Your task to perform on an android device: turn on showing notifications on the lock screen Image 0: 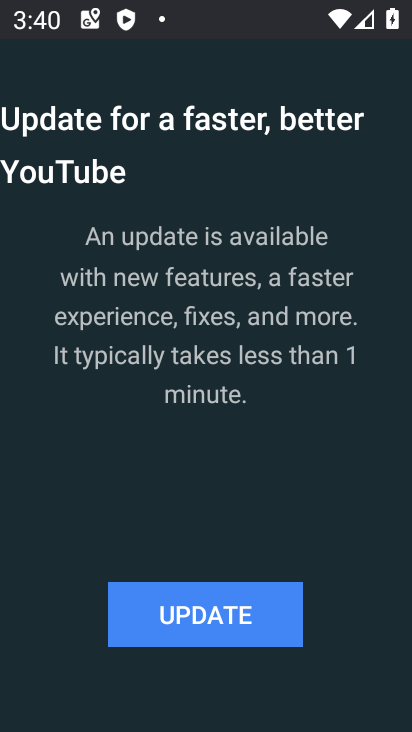
Step 0: press home button
Your task to perform on an android device: turn on showing notifications on the lock screen Image 1: 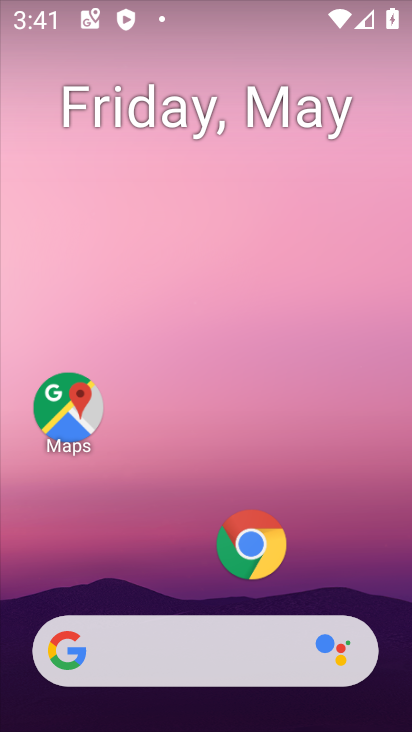
Step 1: drag from (204, 579) to (227, 164)
Your task to perform on an android device: turn on showing notifications on the lock screen Image 2: 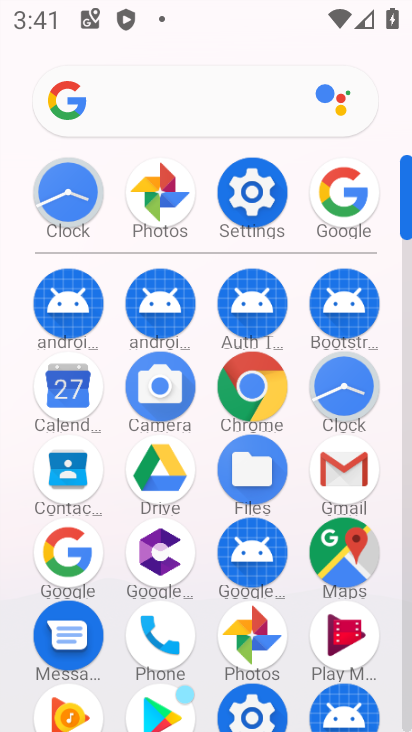
Step 2: click (237, 209)
Your task to perform on an android device: turn on showing notifications on the lock screen Image 3: 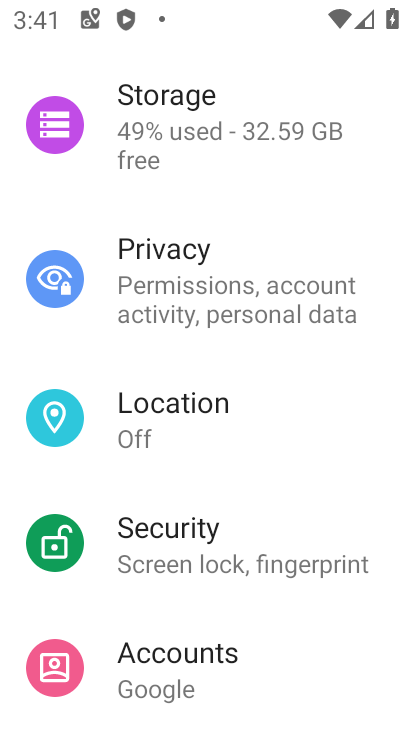
Step 3: drag from (260, 251) to (267, 580)
Your task to perform on an android device: turn on showing notifications on the lock screen Image 4: 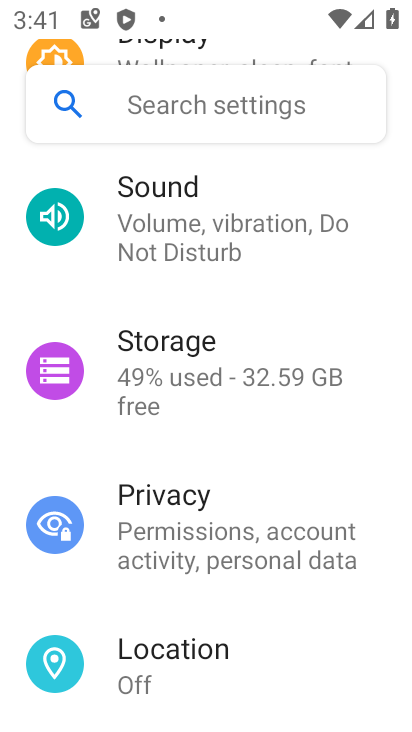
Step 4: drag from (254, 265) to (254, 553)
Your task to perform on an android device: turn on showing notifications on the lock screen Image 5: 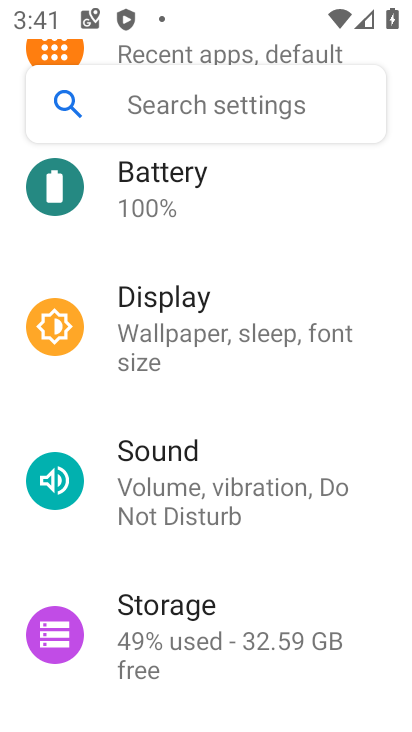
Step 5: drag from (222, 247) to (230, 552)
Your task to perform on an android device: turn on showing notifications on the lock screen Image 6: 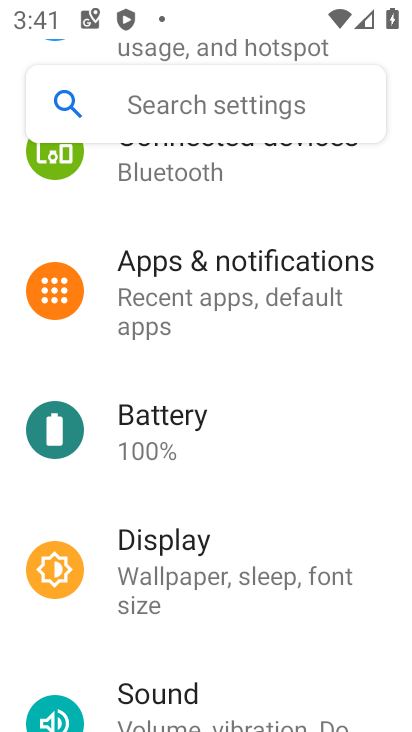
Step 6: click (225, 313)
Your task to perform on an android device: turn on showing notifications on the lock screen Image 7: 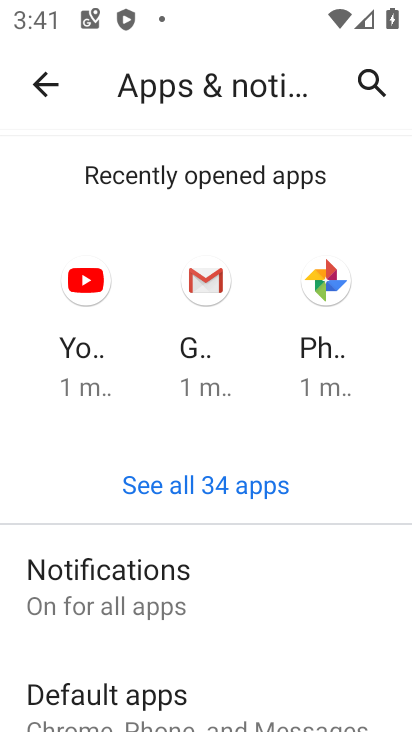
Step 7: click (200, 550)
Your task to perform on an android device: turn on showing notifications on the lock screen Image 8: 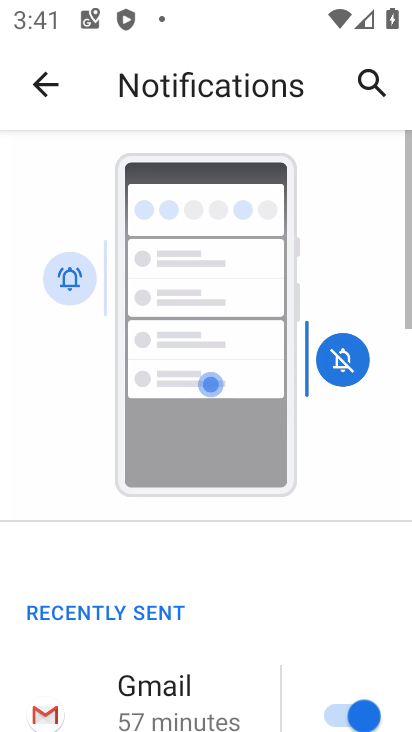
Step 8: drag from (227, 634) to (229, 303)
Your task to perform on an android device: turn on showing notifications on the lock screen Image 9: 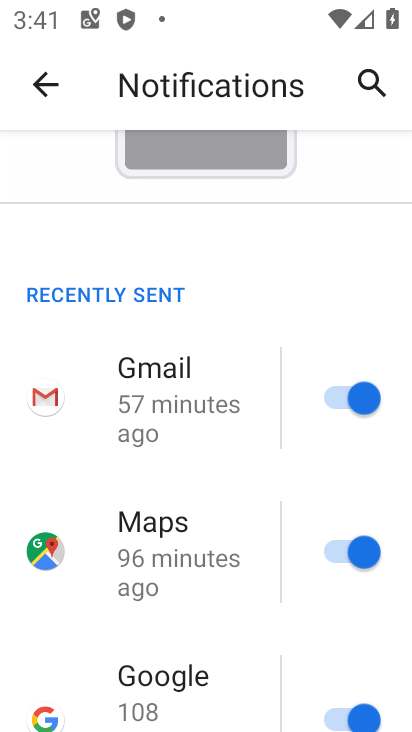
Step 9: drag from (214, 634) to (213, 350)
Your task to perform on an android device: turn on showing notifications on the lock screen Image 10: 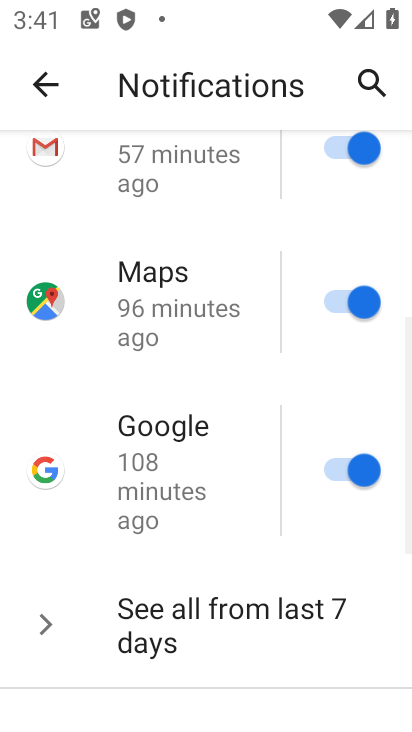
Step 10: drag from (227, 658) to (217, 376)
Your task to perform on an android device: turn on showing notifications on the lock screen Image 11: 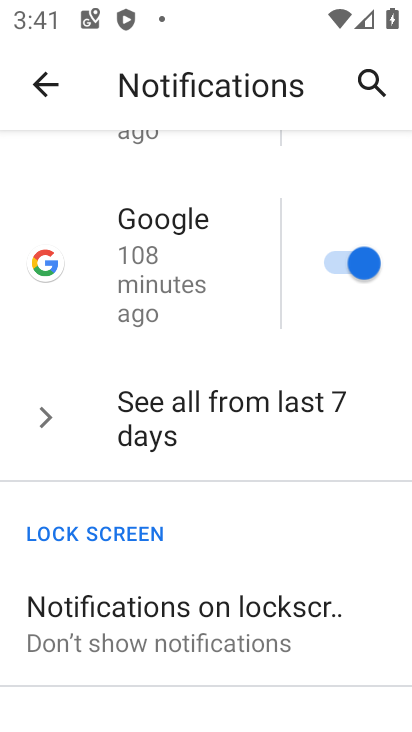
Step 11: click (254, 649)
Your task to perform on an android device: turn on showing notifications on the lock screen Image 12: 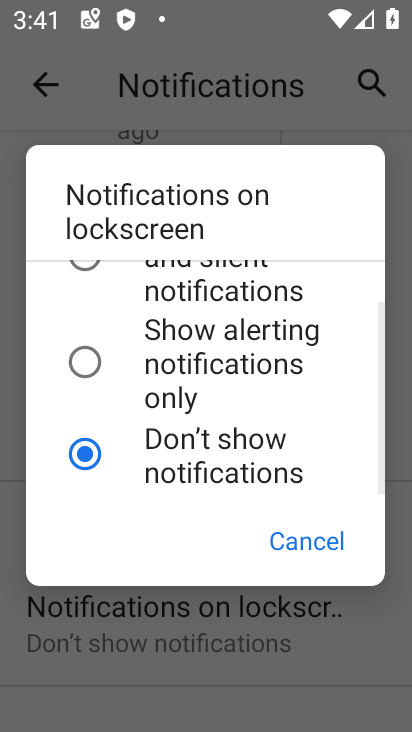
Step 12: click (127, 272)
Your task to perform on an android device: turn on showing notifications on the lock screen Image 13: 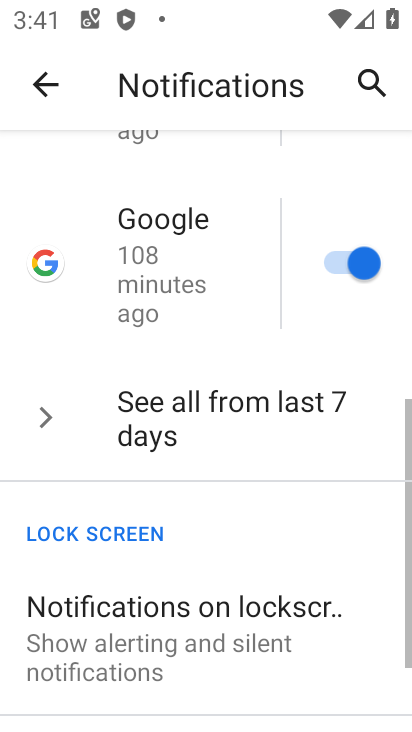
Step 13: task complete